Your task to perform on an android device: create a new album in the google photos Image 0: 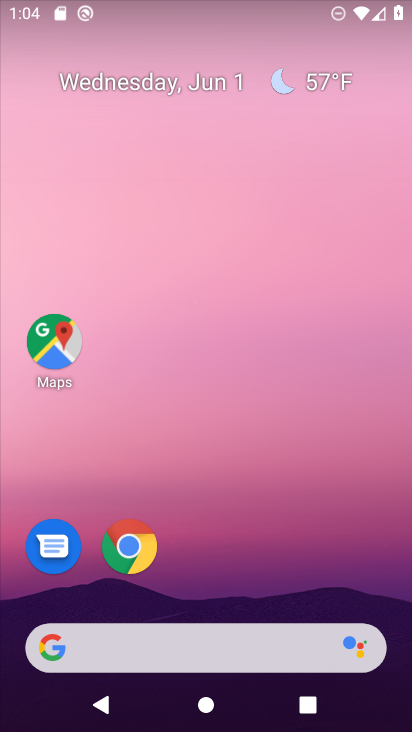
Step 0: drag from (194, 612) to (106, 5)
Your task to perform on an android device: create a new album in the google photos Image 1: 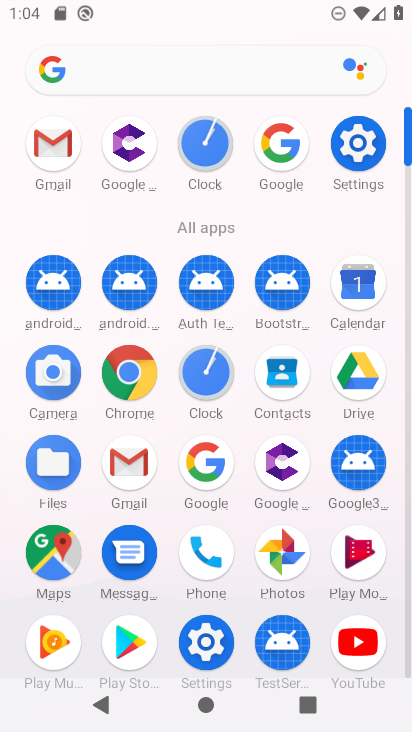
Step 1: click (289, 564)
Your task to perform on an android device: create a new album in the google photos Image 2: 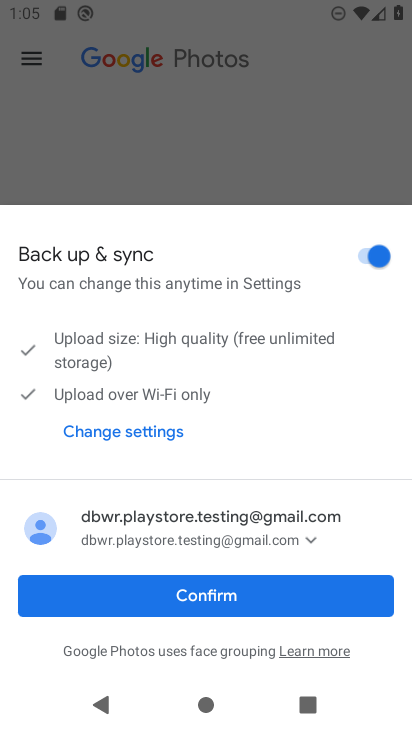
Step 2: click (145, 606)
Your task to perform on an android device: create a new album in the google photos Image 3: 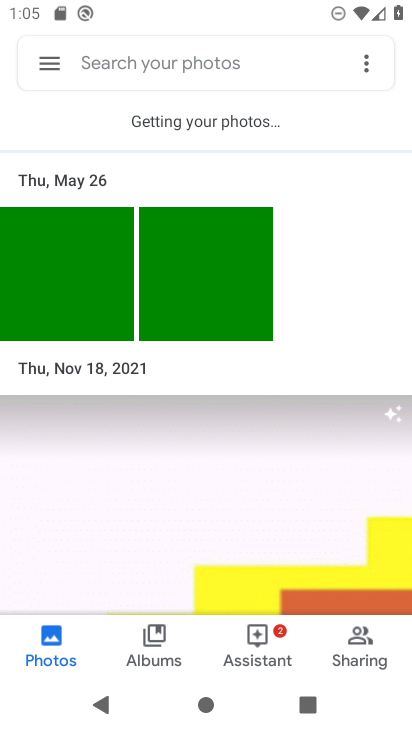
Step 3: click (74, 303)
Your task to perform on an android device: create a new album in the google photos Image 4: 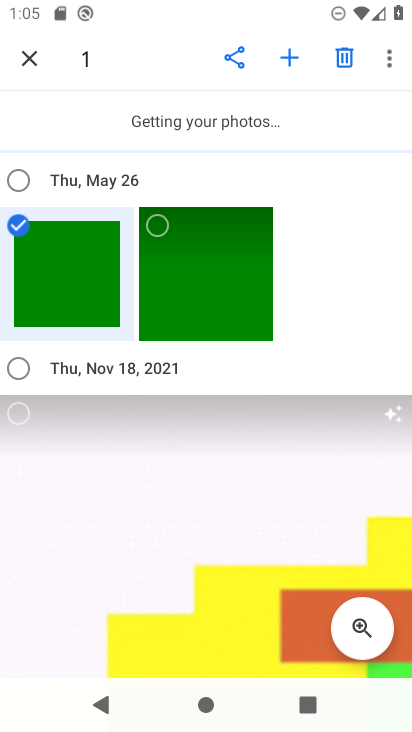
Step 4: click (199, 302)
Your task to perform on an android device: create a new album in the google photos Image 5: 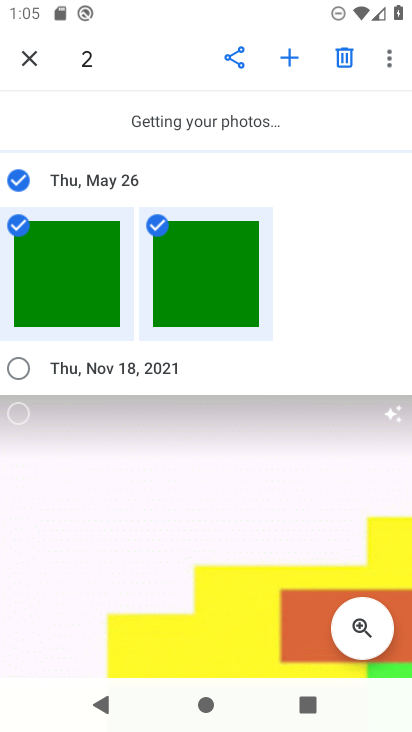
Step 5: click (287, 61)
Your task to perform on an android device: create a new album in the google photos Image 6: 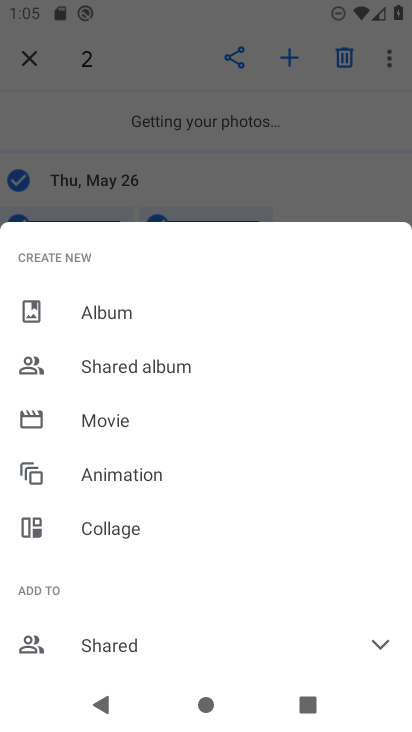
Step 6: click (118, 325)
Your task to perform on an android device: create a new album in the google photos Image 7: 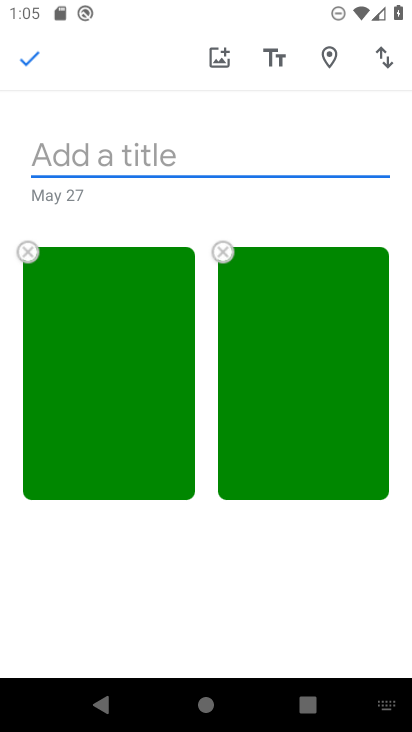
Step 7: type "hk"
Your task to perform on an android device: create a new album in the google photos Image 8: 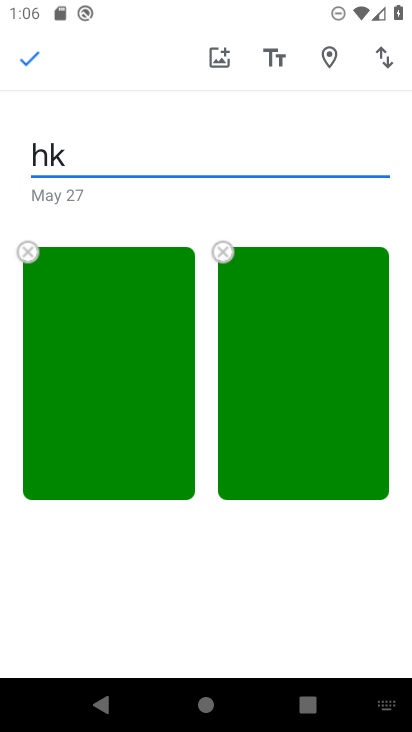
Step 8: click (28, 58)
Your task to perform on an android device: create a new album in the google photos Image 9: 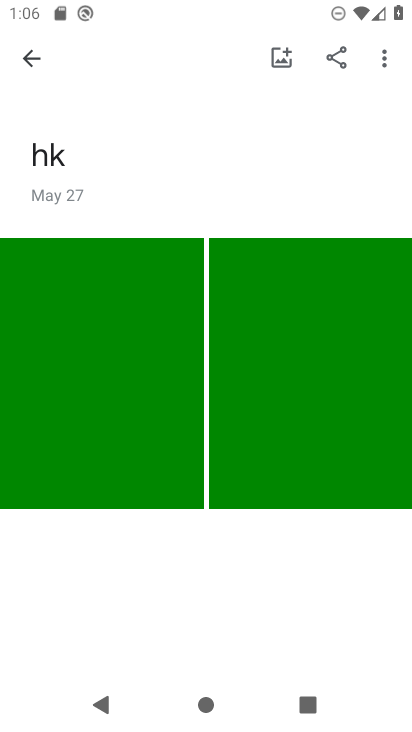
Step 9: task complete